Your task to perform on an android device: search for starred emails in the gmail app Image 0: 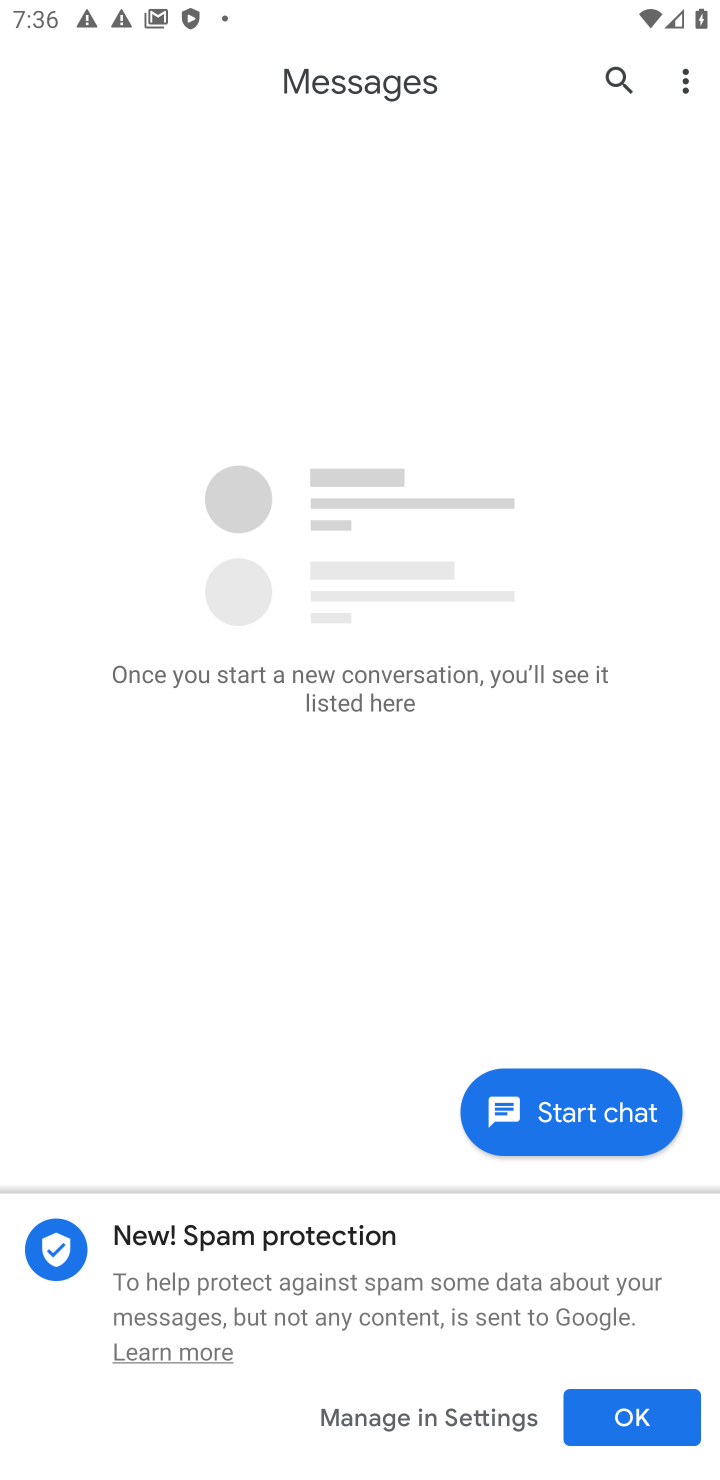
Step 0: press home button
Your task to perform on an android device: search for starred emails in the gmail app Image 1: 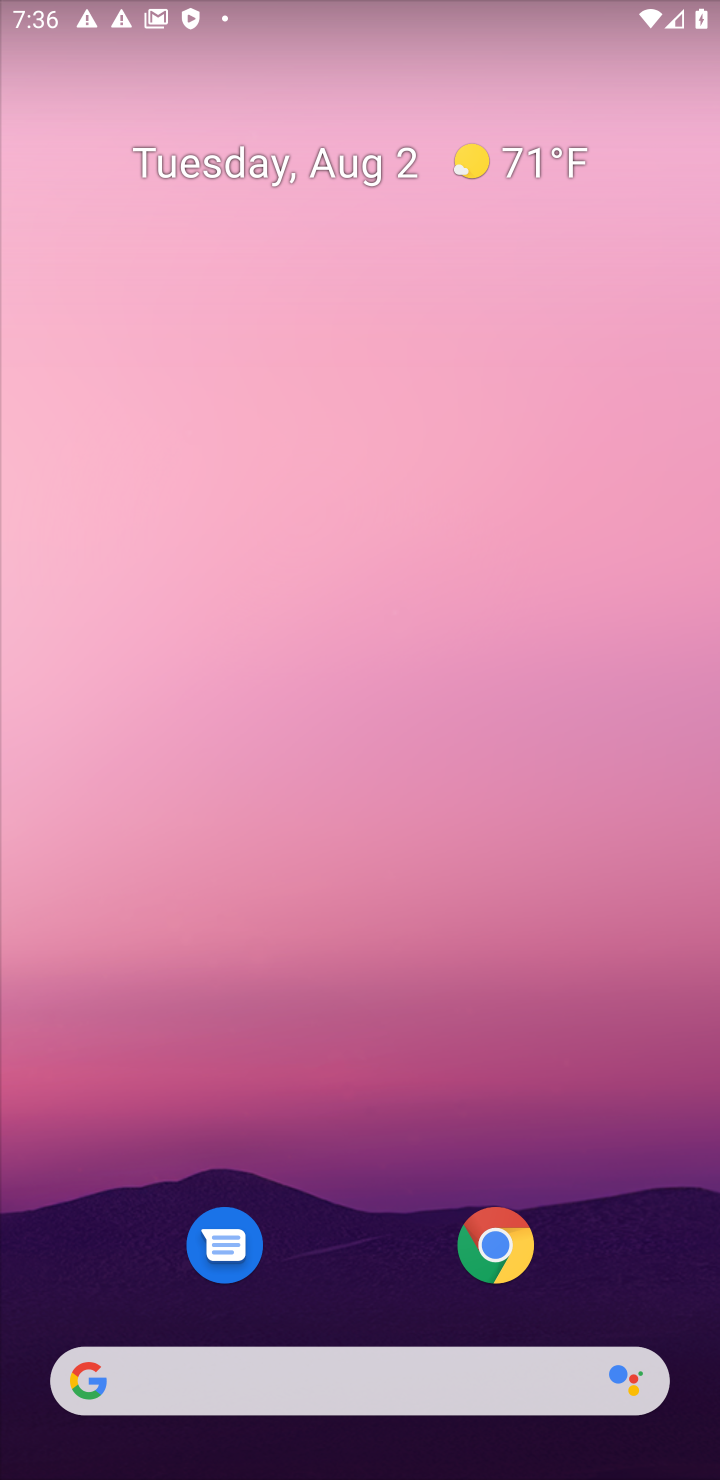
Step 1: drag from (334, 553) to (323, 57)
Your task to perform on an android device: search for starred emails in the gmail app Image 2: 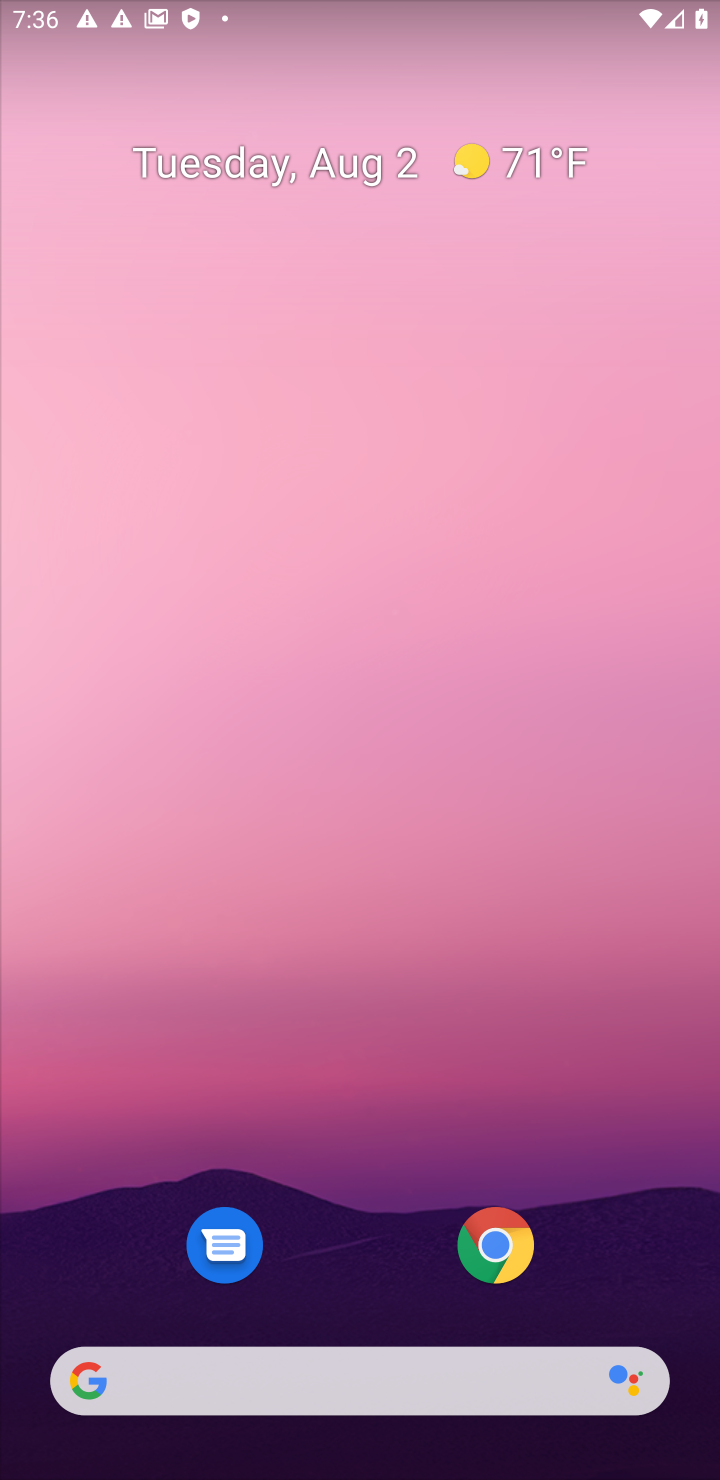
Step 2: drag from (343, 994) to (348, 369)
Your task to perform on an android device: search for starred emails in the gmail app Image 3: 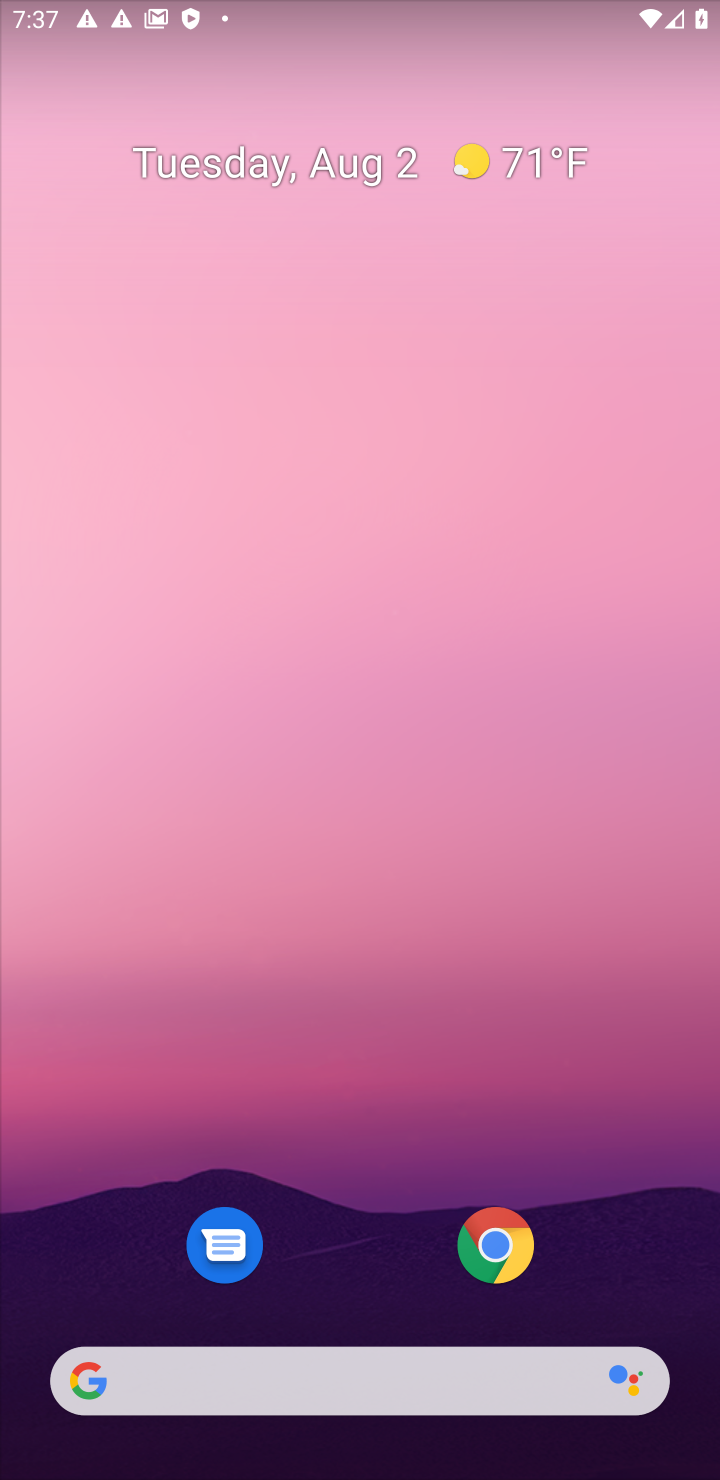
Step 3: click (346, 76)
Your task to perform on an android device: search for starred emails in the gmail app Image 4: 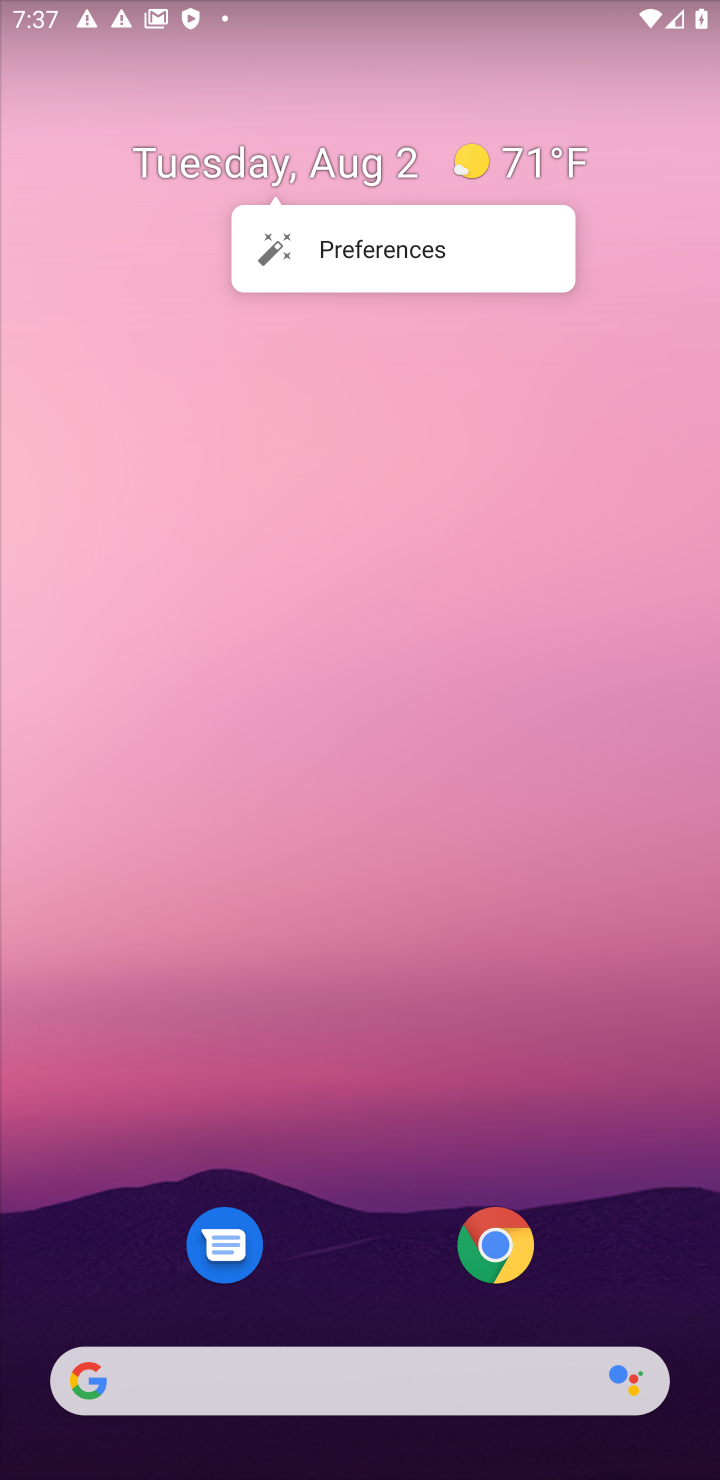
Step 4: drag from (354, 901) to (359, 172)
Your task to perform on an android device: search for starred emails in the gmail app Image 5: 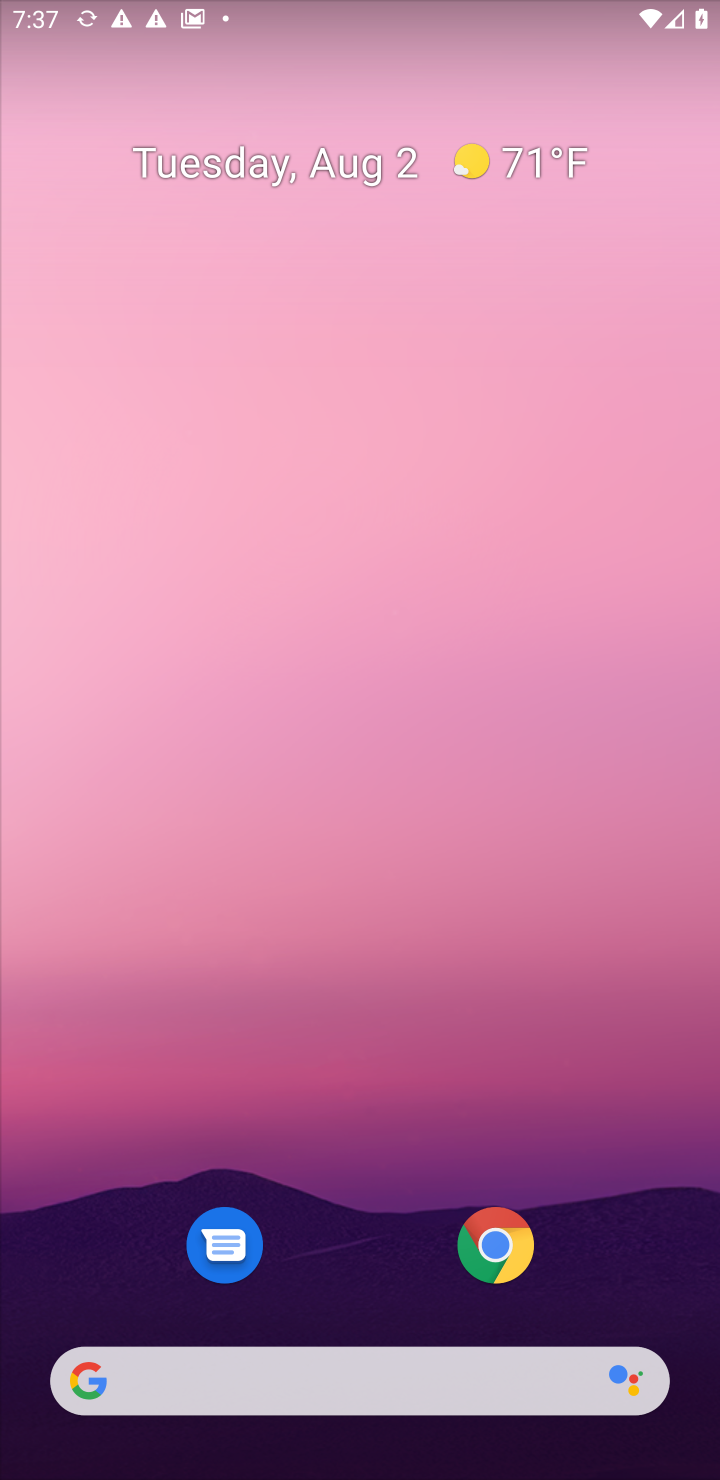
Step 5: drag from (308, 927) to (306, 445)
Your task to perform on an android device: search for starred emails in the gmail app Image 6: 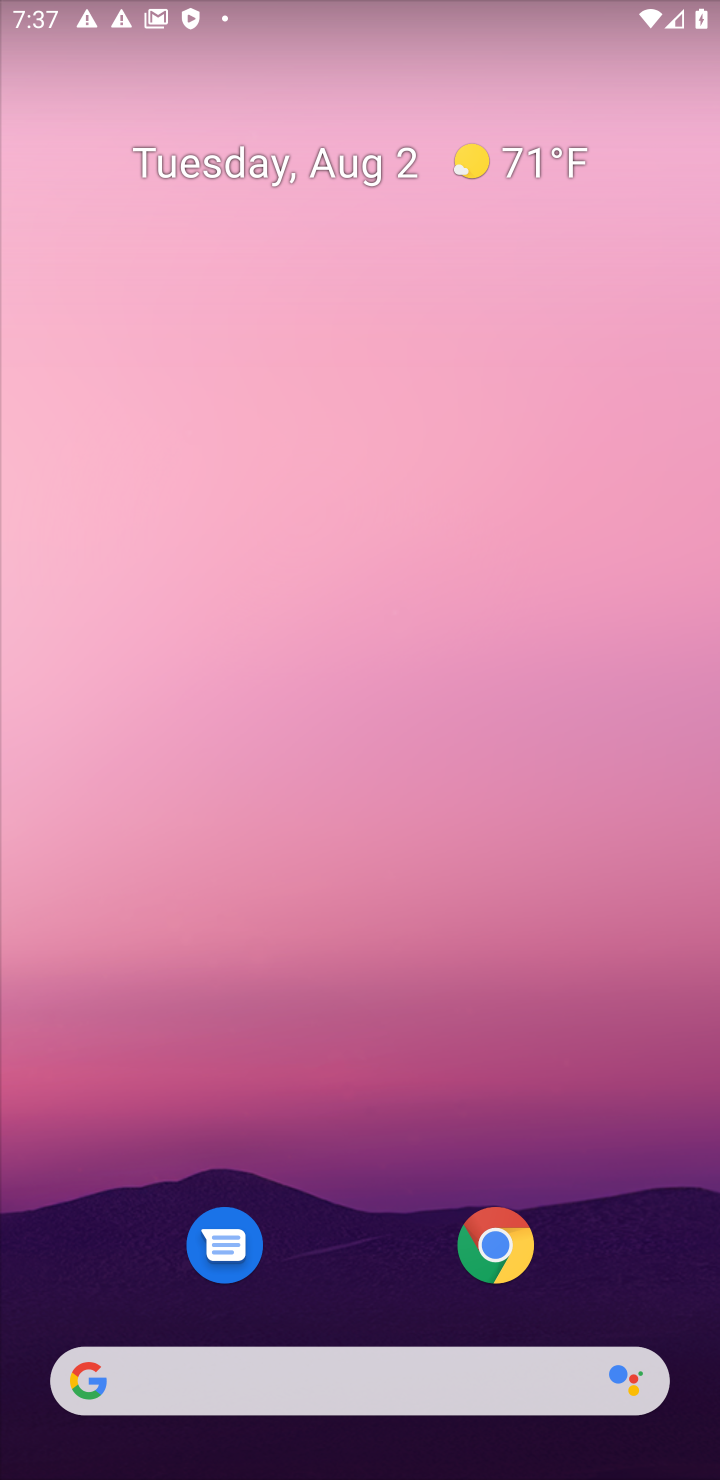
Step 6: drag from (367, 1258) to (416, 5)
Your task to perform on an android device: search for starred emails in the gmail app Image 7: 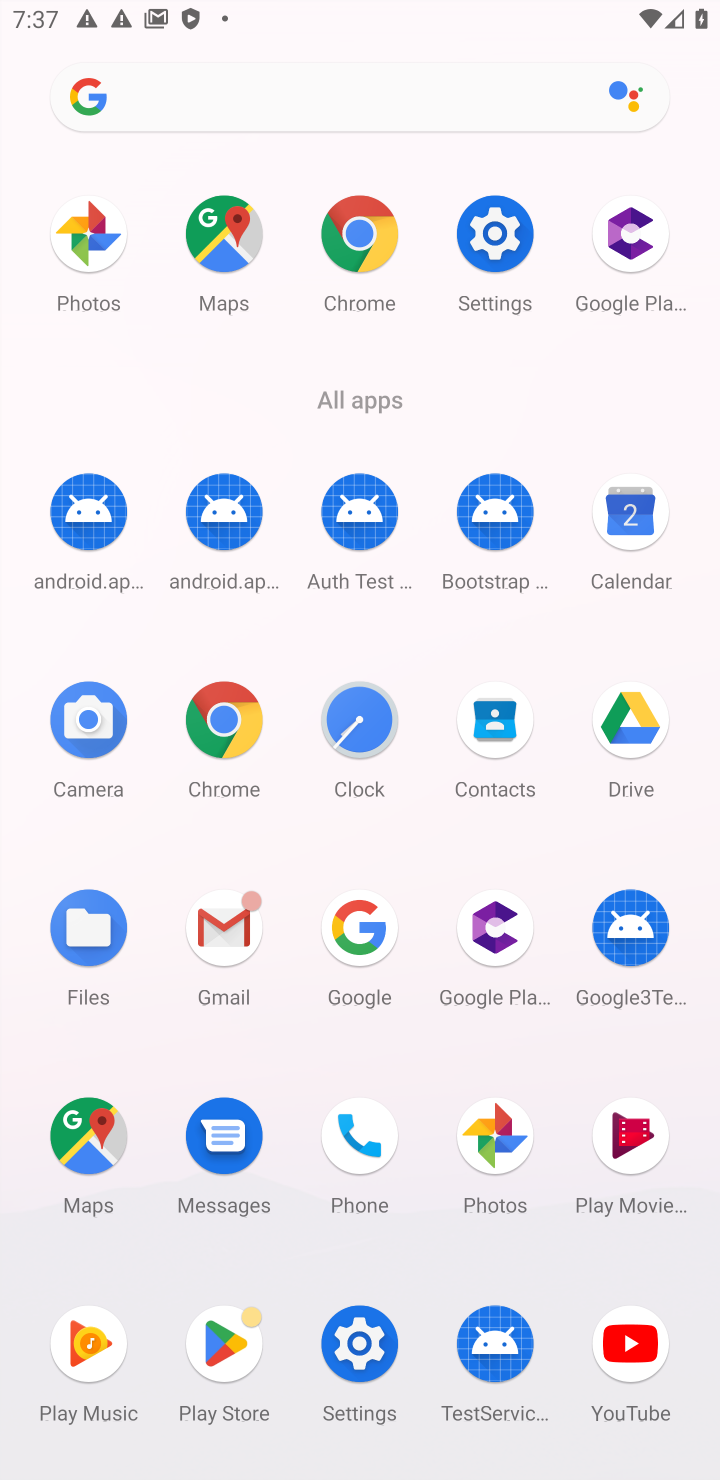
Step 7: click (234, 931)
Your task to perform on an android device: search for starred emails in the gmail app Image 8: 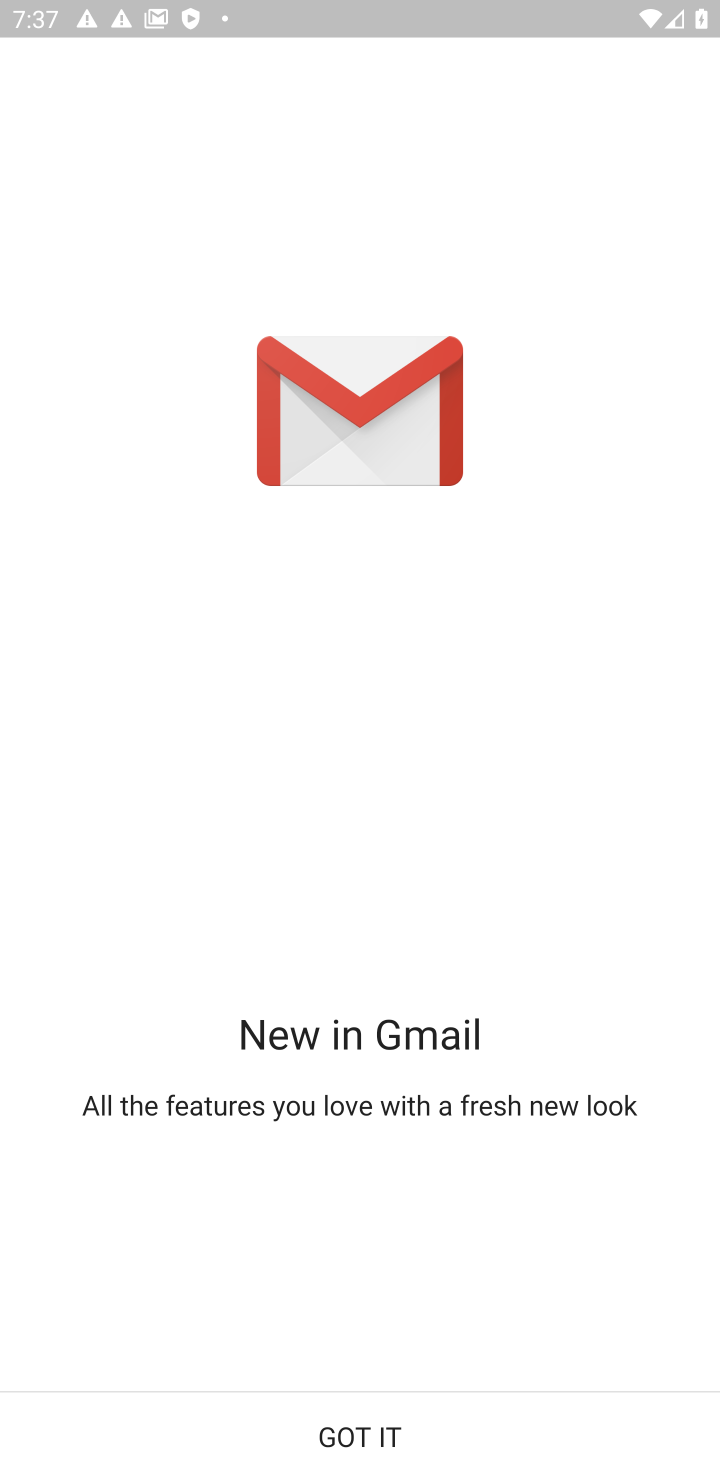
Step 8: click (374, 1427)
Your task to perform on an android device: search for starred emails in the gmail app Image 9: 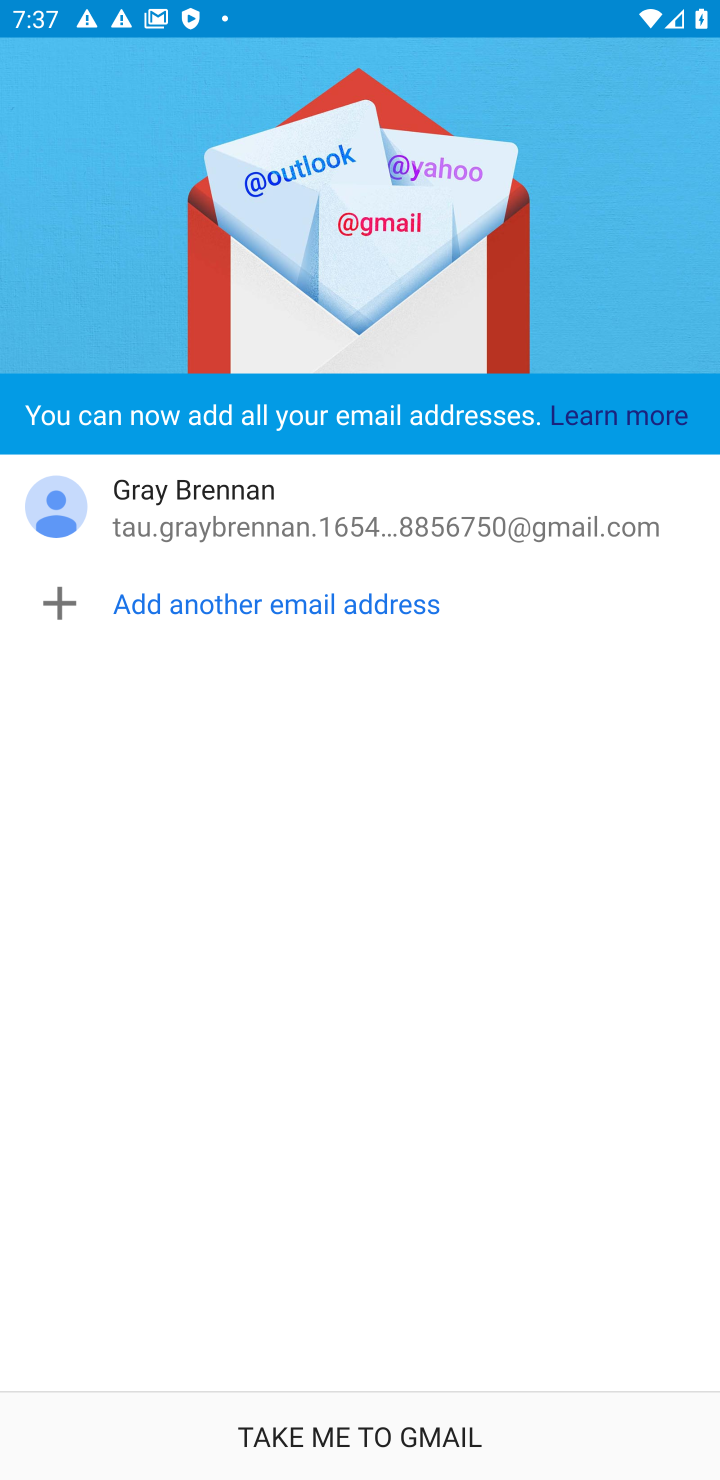
Step 9: click (374, 1427)
Your task to perform on an android device: search for starred emails in the gmail app Image 10: 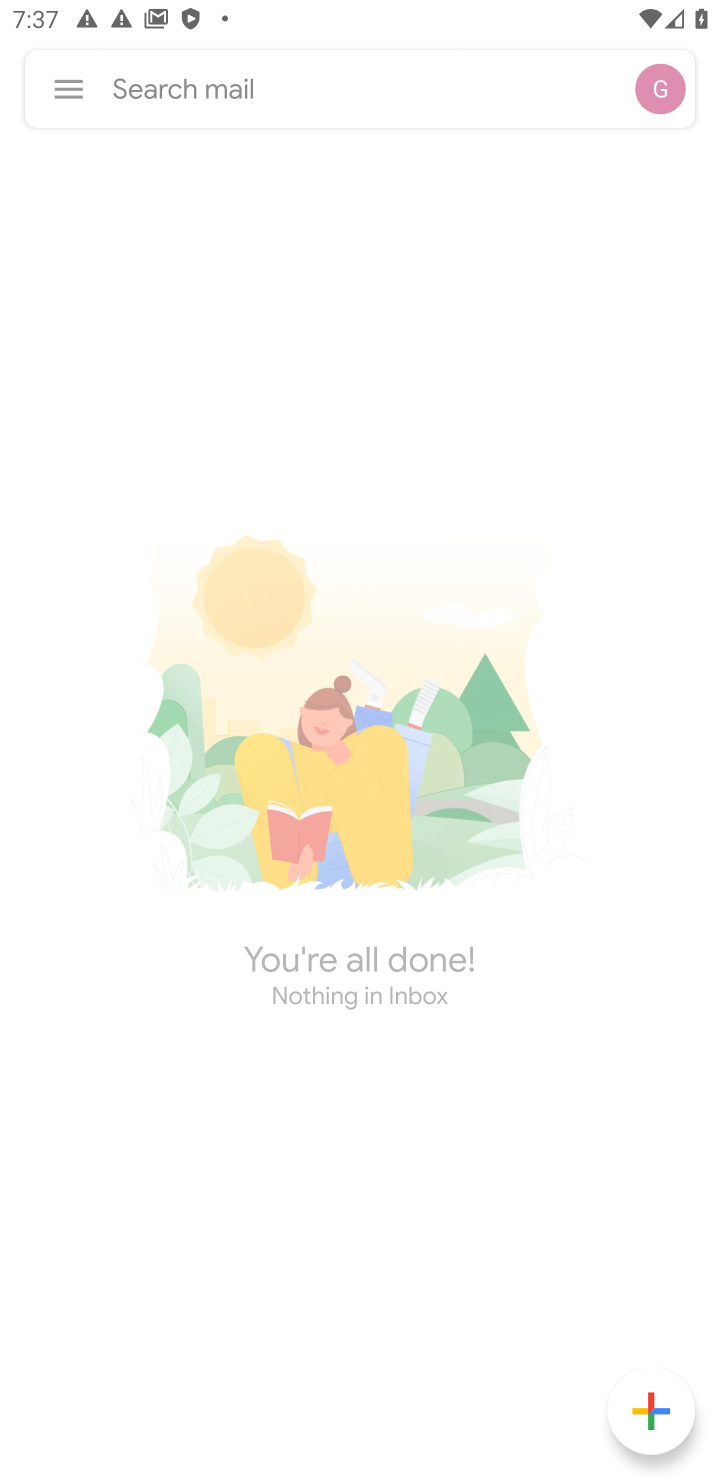
Step 10: click (64, 90)
Your task to perform on an android device: search for starred emails in the gmail app Image 11: 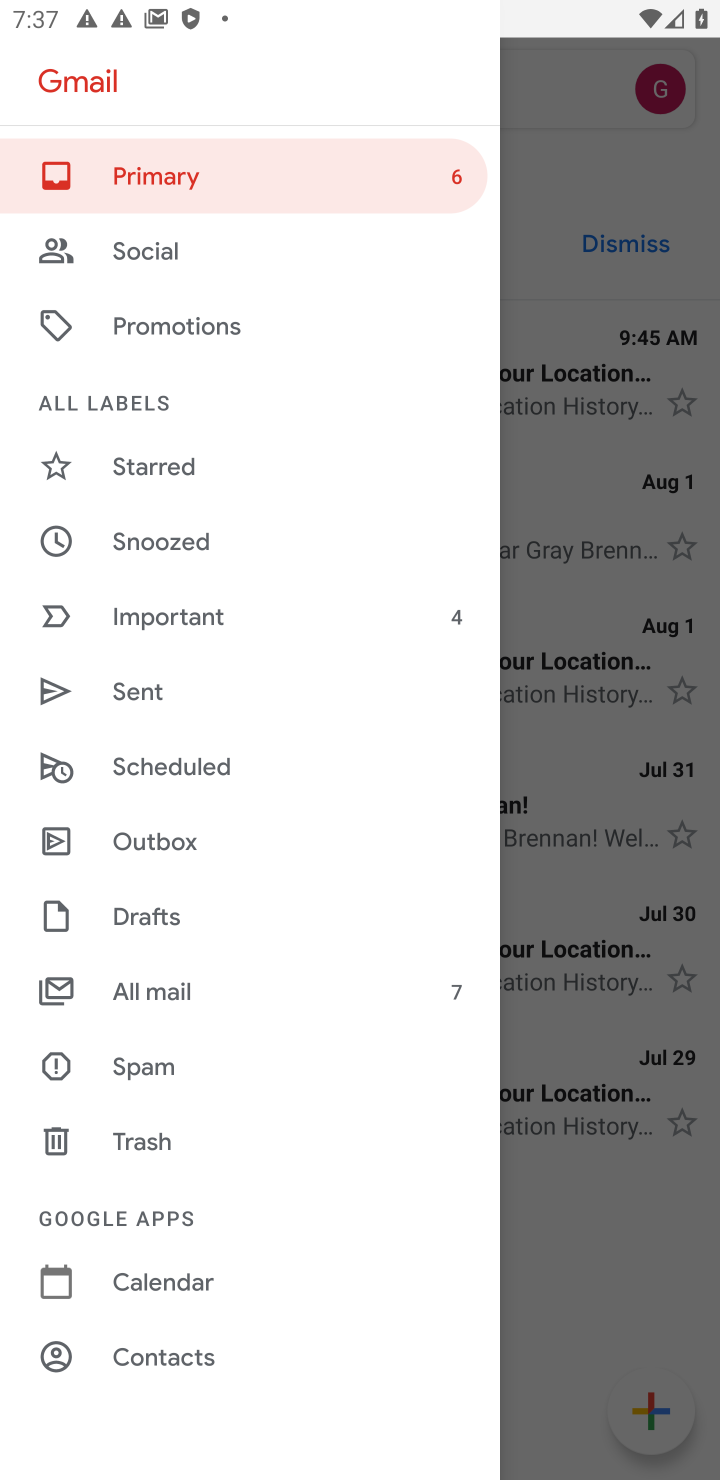
Step 11: click (189, 468)
Your task to perform on an android device: search for starred emails in the gmail app Image 12: 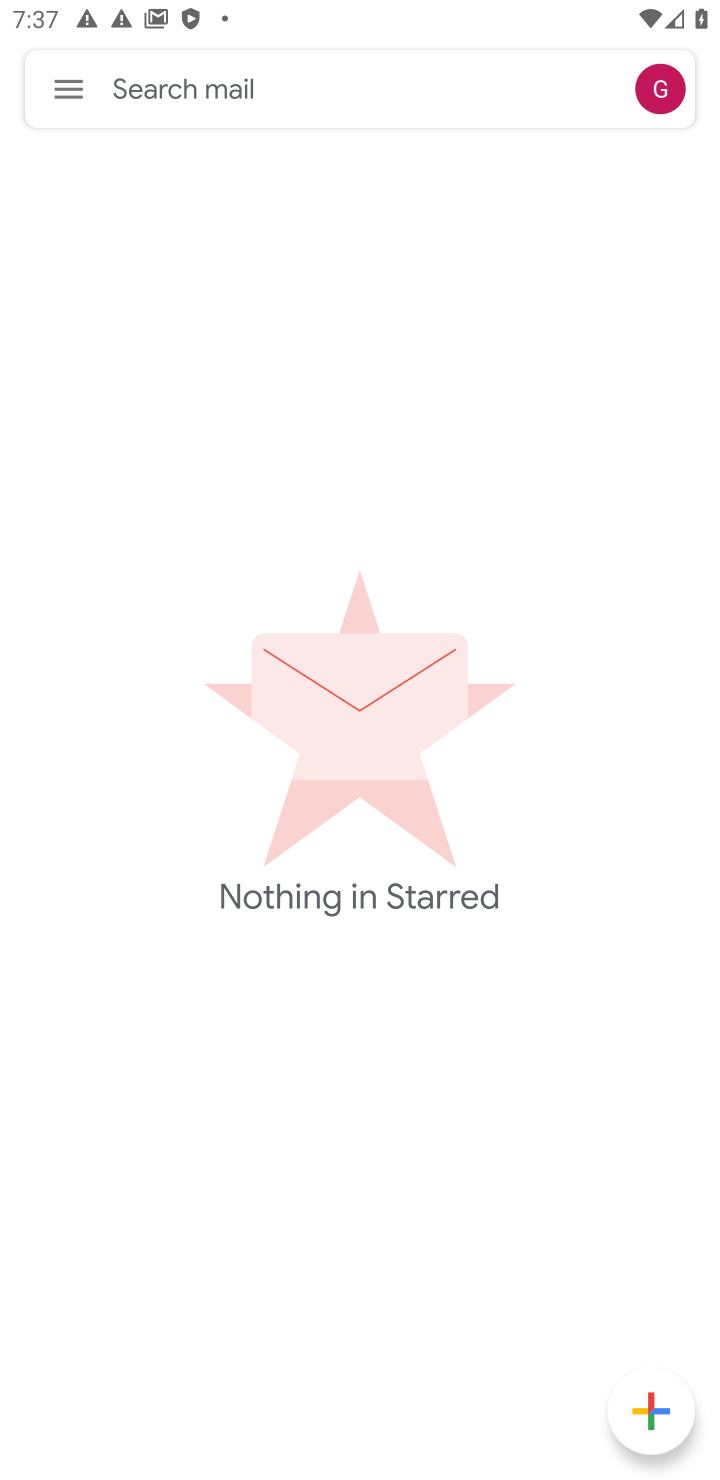
Step 12: task complete